Your task to perform on an android device: Clear the cart on walmart.com. Add "logitech g pro" to the cart on walmart.com, then select checkout. Image 0: 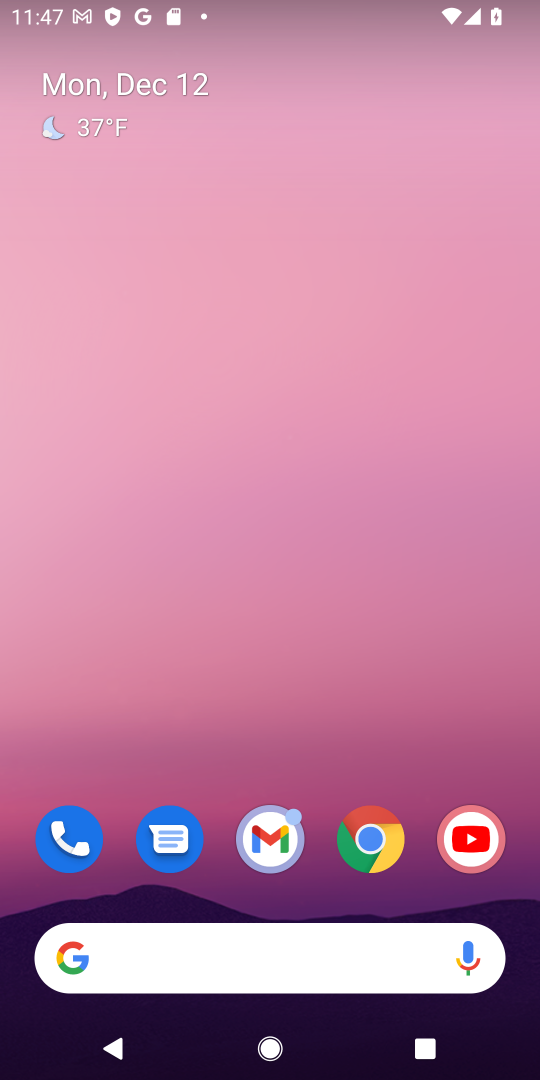
Step 0: click (364, 844)
Your task to perform on an android device: Clear the cart on walmart.com. Add "logitech g pro" to the cart on walmart.com, then select checkout. Image 1: 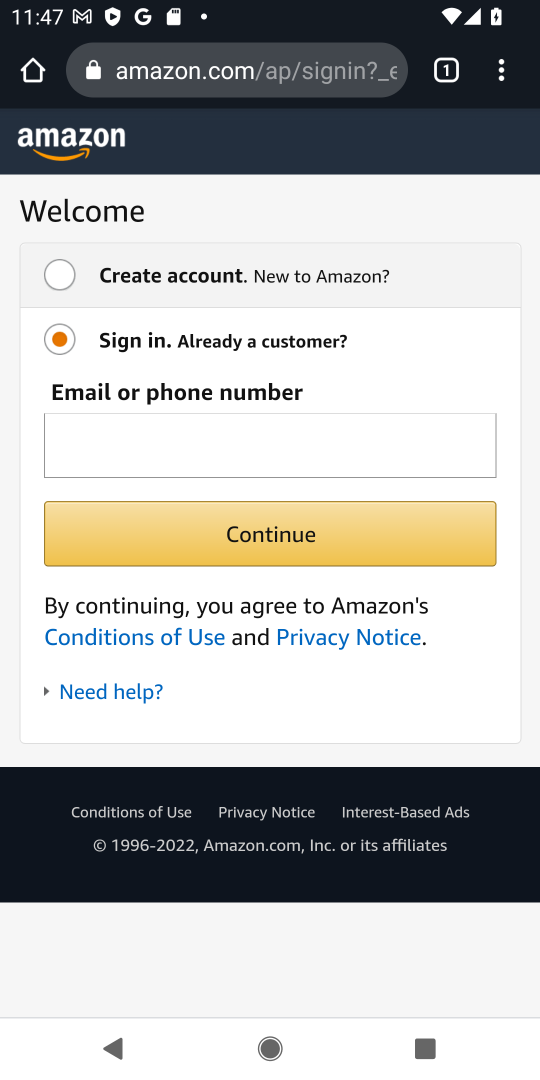
Step 1: click (278, 71)
Your task to perform on an android device: Clear the cart on walmart.com. Add "logitech g pro" to the cart on walmart.com, then select checkout. Image 2: 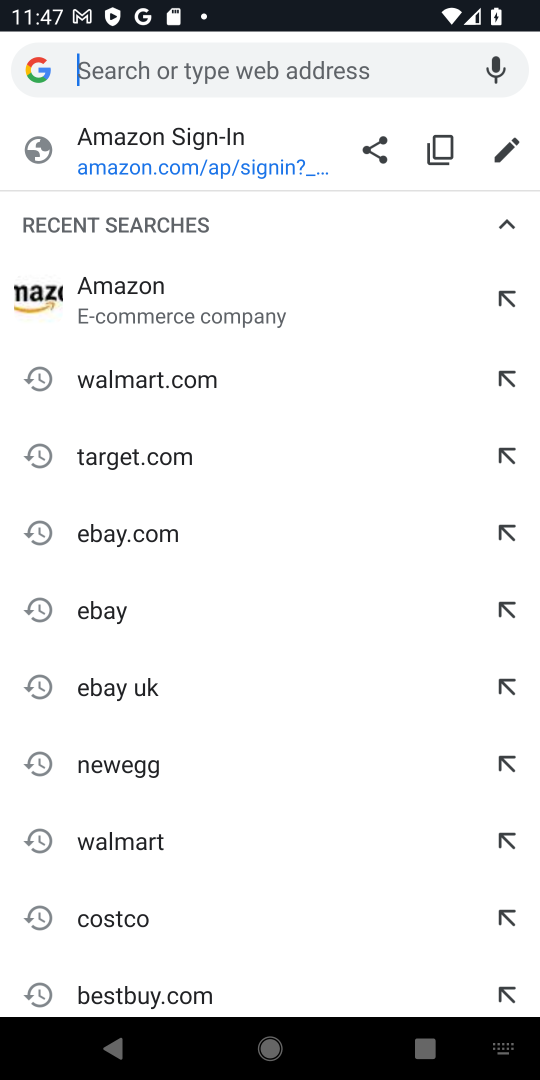
Step 2: type "walmart.com"
Your task to perform on an android device: Clear the cart on walmart.com. Add "logitech g pro" to the cart on walmart.com, then select checkout. Image 3: 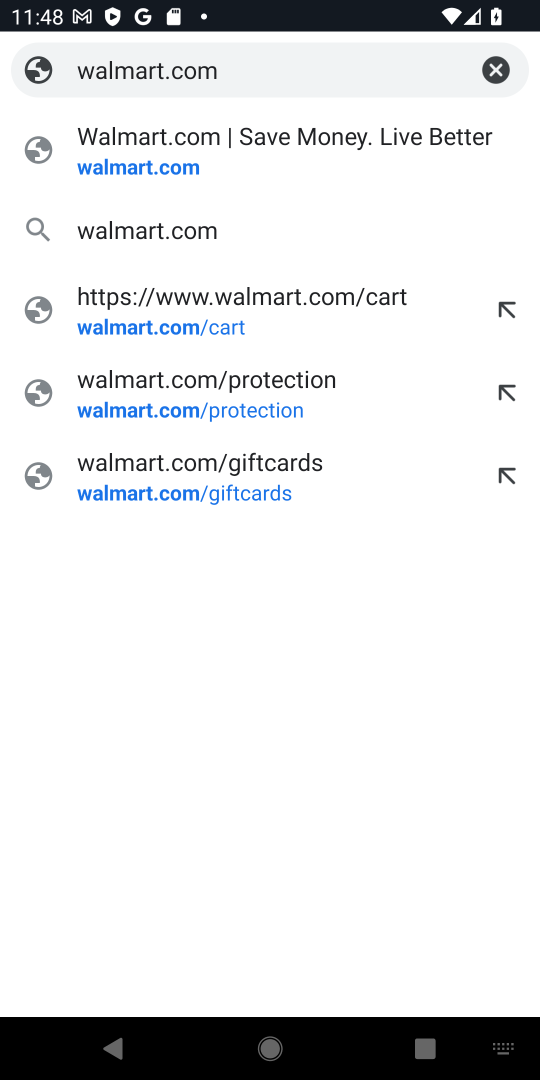
Step 3: click (160, 236)
Your task to perform on an android device: Clear the cart on walmart.com. Add "logitech g pro" to the cart on walmart.com, then select checkout. Image 4: 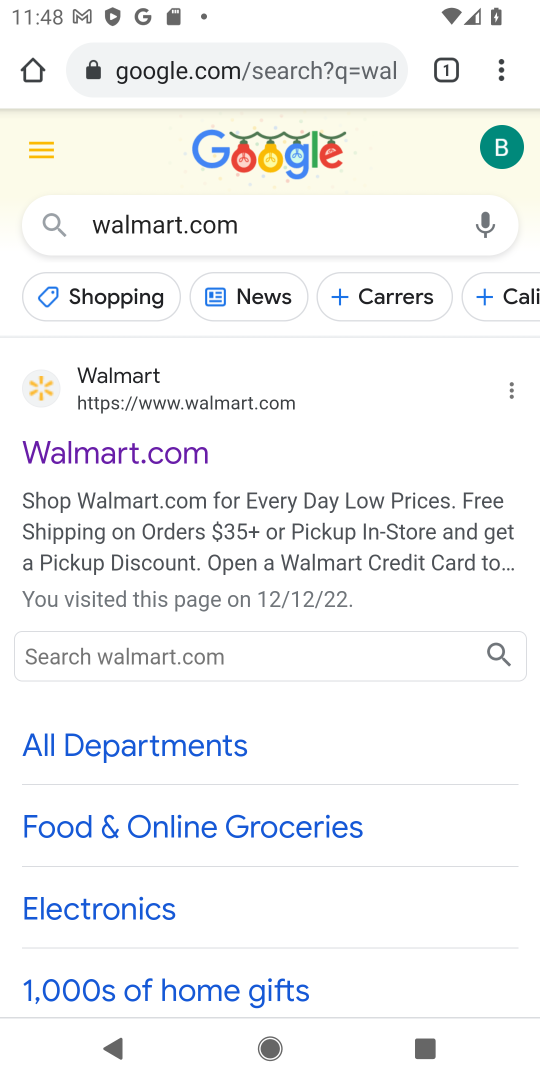
Step 4: click (113, 451)
Your task to perform on an android device: Clear the cart on walmart.com. Add "logitech g pro" to the cart on walmart.com, then select checkout. Image 5: 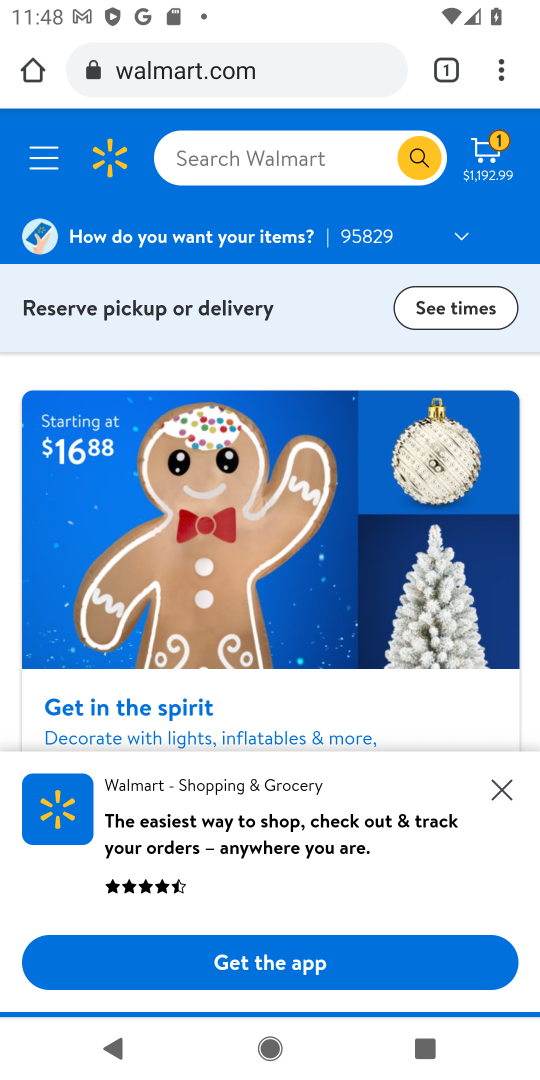
Step 5: click (498, 152)
Your task to perform on an android device: Clear the cart on walmart.com. Add "logitech g pro" to the cart on walmart.com, then select checkout. Image 6: 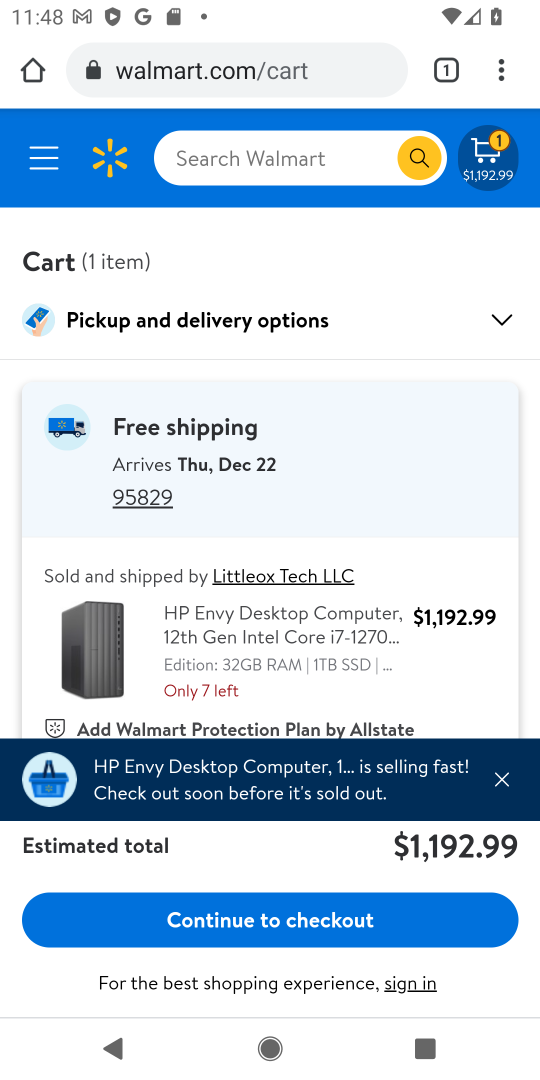
Step 6: drag from (199, 590) to (306, 263)
Your task to perform on an android device: Clear the cart on walmart.com. Add "logitech g pro" to the cart on walmart.com, then select checkout. Image 7: 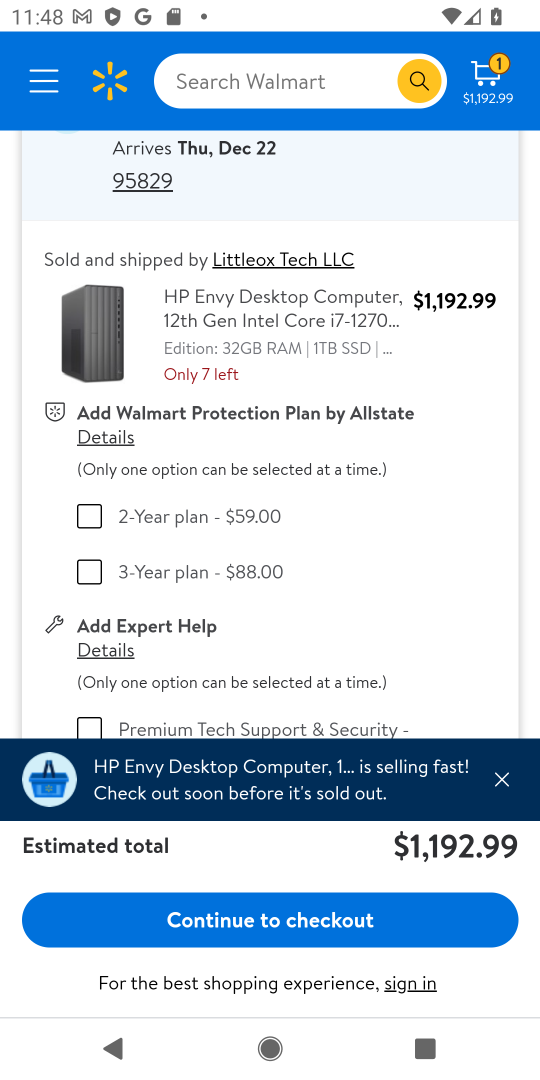
Step 7: drag from (258, 638) to (339, 338)
Your task to perform on an android device: Clear the cart on walmart.com. Add "logitech g pro" to the cart on walmart.com, then select checkout. Image 8: 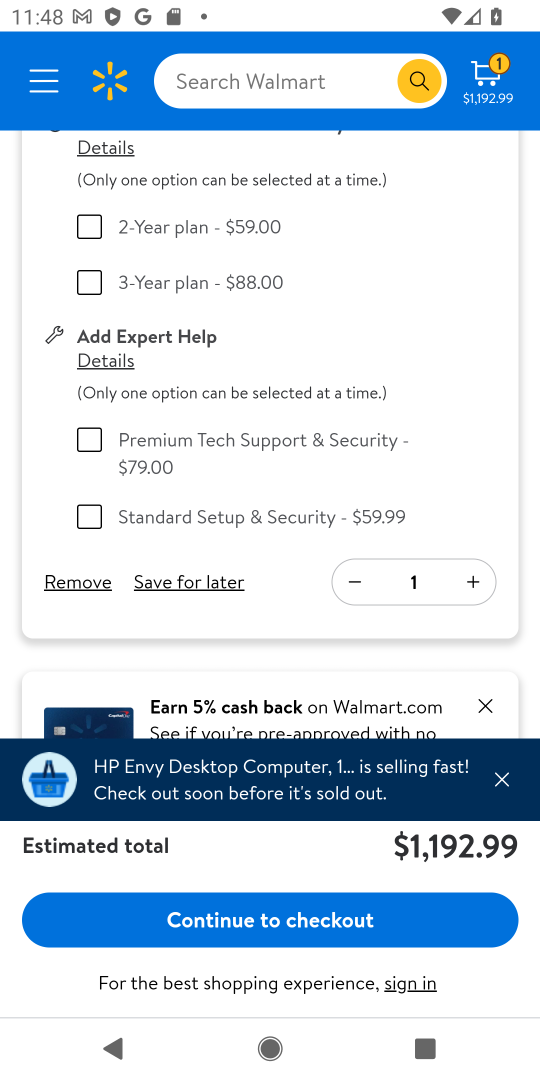
Step 8: click (69, 583)
Your task to perform on an android device: Clear the cart on walmart.com. Add "logitech g pro" to the cart on walmart.com, then select checkout. Image 9: 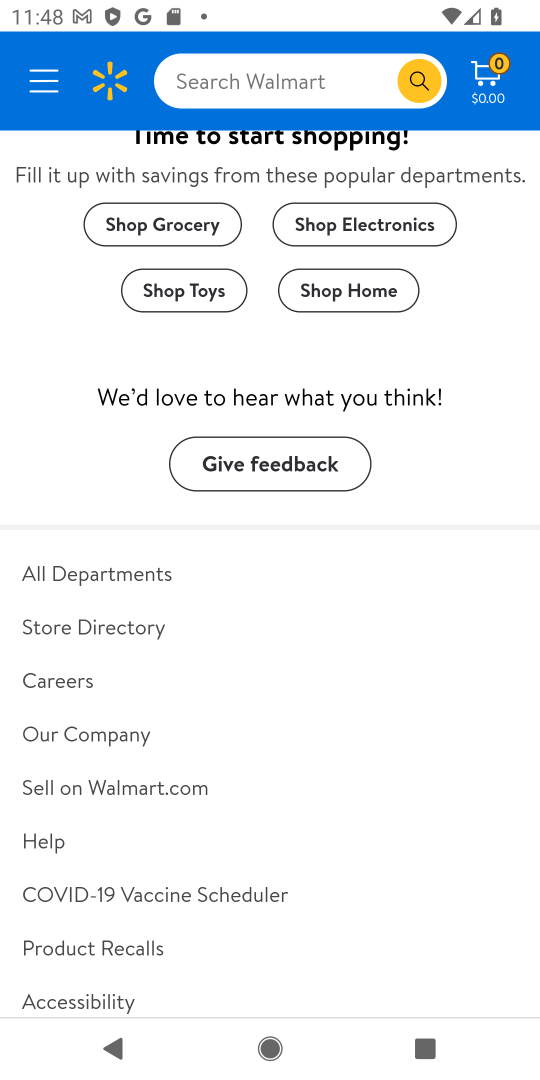
Step 9: click (262, 79)
Your task to perform on an android device: Clear the cart on walmart.com. Add "logitech g pro" to the cart on walmart.com, then select checkout. Image 10: 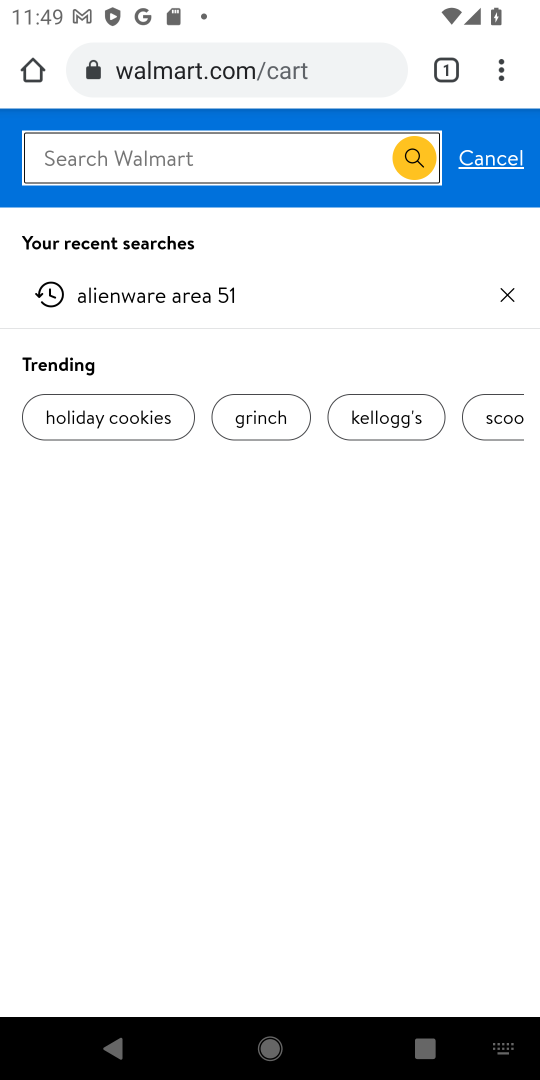
Step 10: type "logitech g pro"
Your task to perform on an android device: Clear the cart on walmart.com. Add "logitech g pro" to the cart on walmart.com, then select checkout. Image 11: 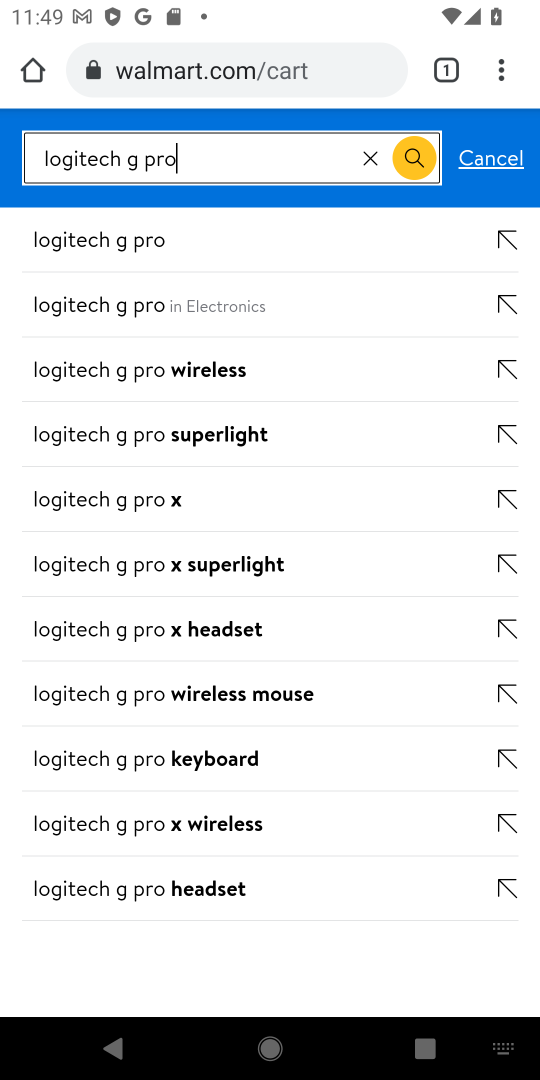
Step 11: click (134, 237)
Your task to perform on an android device: Clear the cart on walmart.com. Add "logitech g pro" to the cart on walmart.com, then select checkout. Image 12: 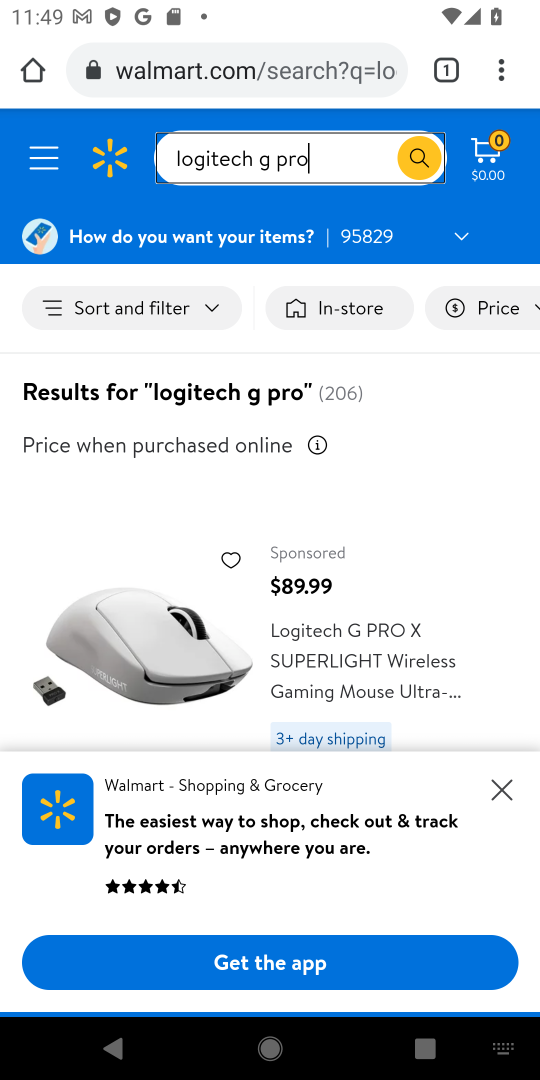
Step 12: click (325, 637)
Your task to perform on an android device: Clear the cart on walmart.com. Add "logitech g pro" to the cart on walmart.com, then select checkout. Image 13: 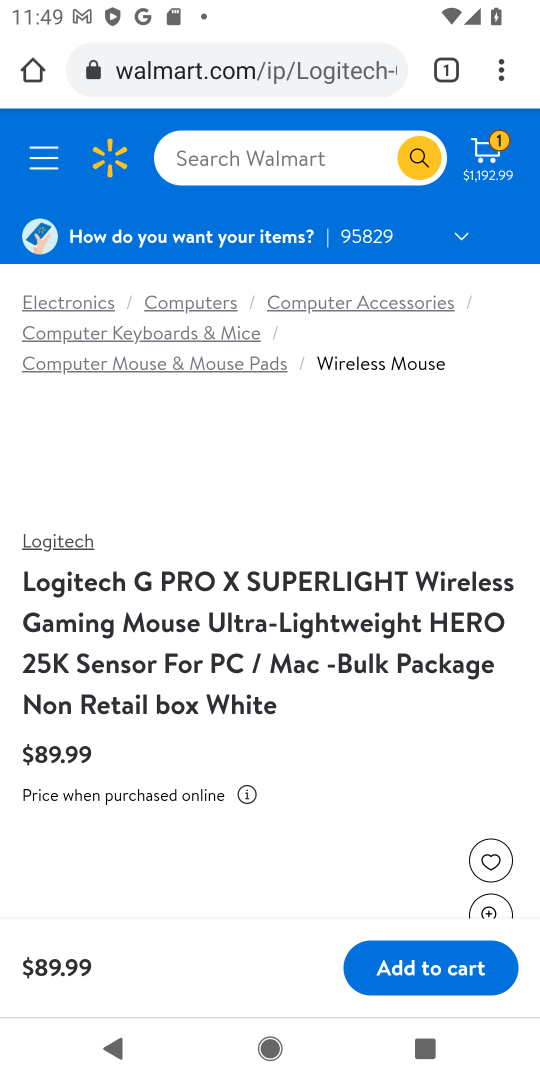
Step 13: click (430, 966)
Your task to perform on an android device: Clear the cart on walmart.com. Add "logitech g pro" to the cart on walmart.com, then select checkout. Image 14: 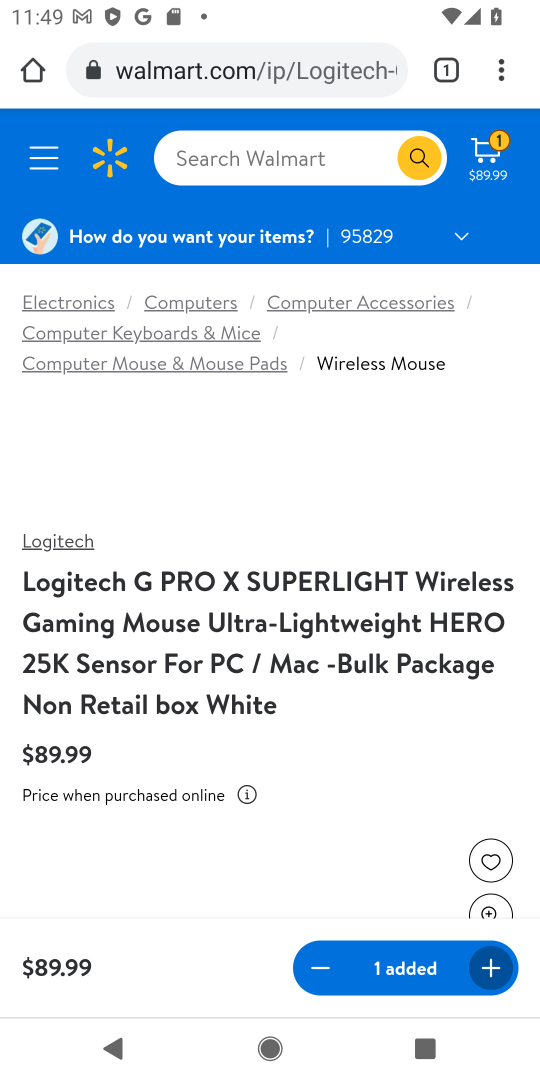
Step 14: click (496, 145)
Your task to perform on an android device: Clear the cart on walmart.com. Add "logitech g pro" to the cart on walmart.com, then select checkout. Image 15: 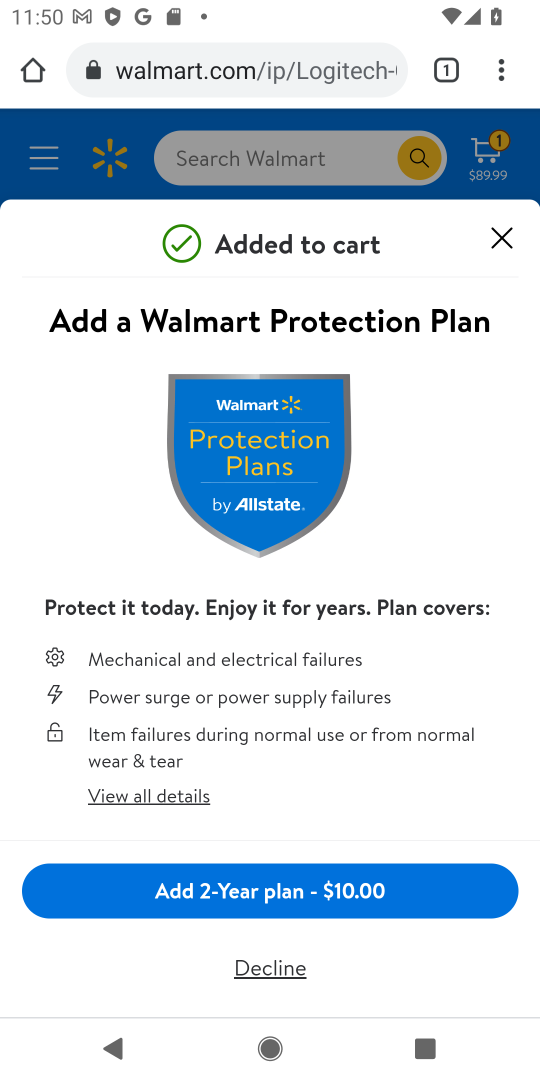
Step 15: click (506, 229)
Your task to perform on an android device: Clear the cart on walmart.com. Add "logitech g pro" to the cart on walmart.com, then select checkout. Image 16: 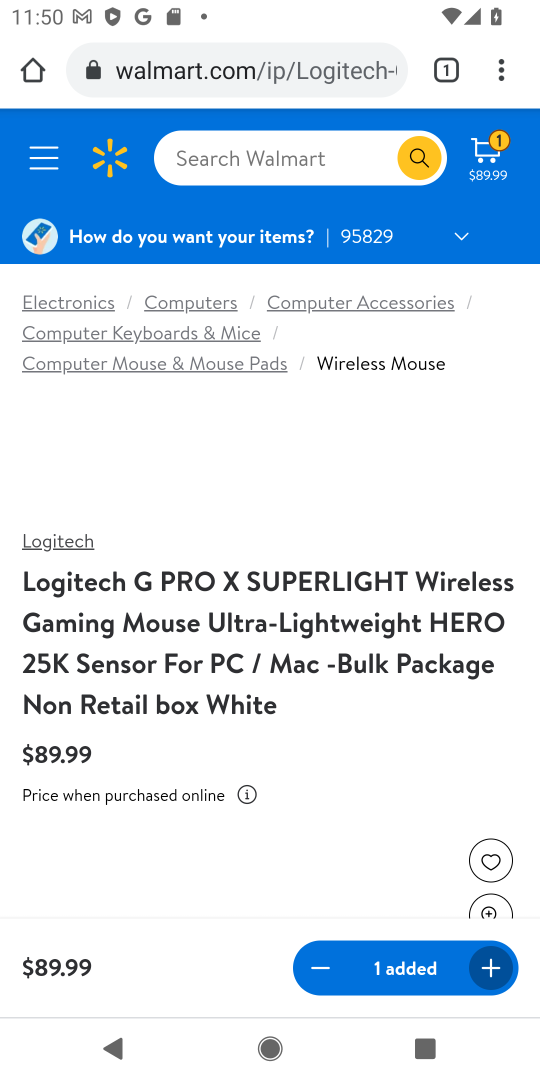
Step 16: click (490, 151)
Your task to perform on an android device: Clear the cart on walmart.com. Add "logitech g pro" to the cart on walmart.com, then select checkout. Image 17: 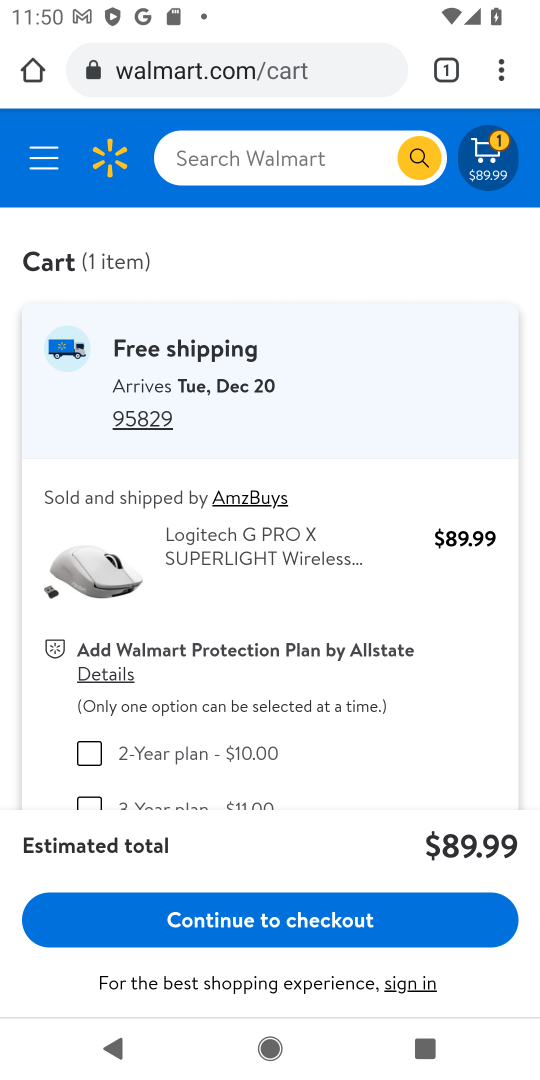
Step 17: click (263, 910)
Your task to perform on an android device: Clear the cart on walmart.com. Add "logitech g pro" to the cart on walmart.com, then select checkout. Image 18: 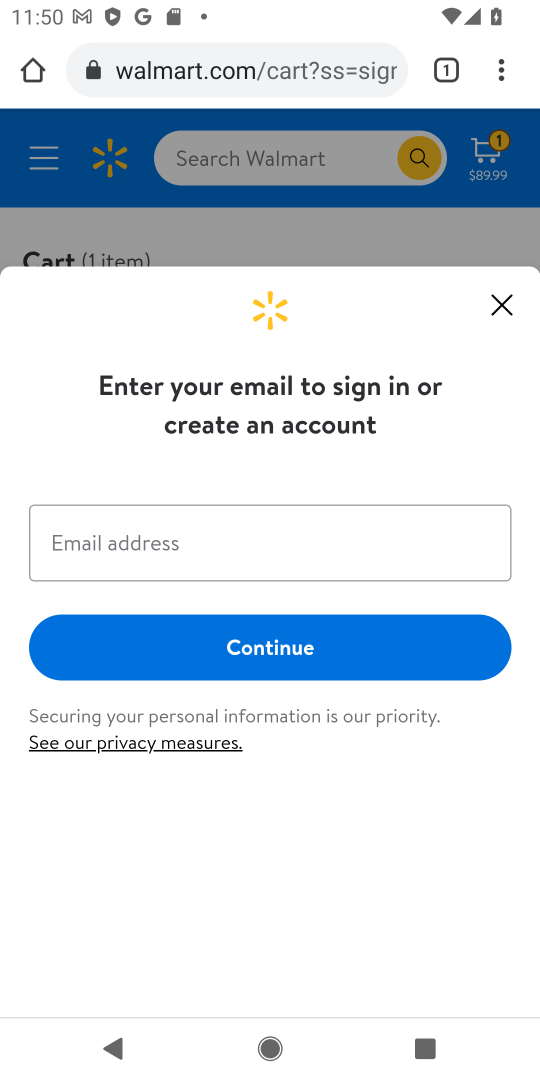
Step 18: task complete